Your task to perform on an android device: Go to accessibility settings Image 0: 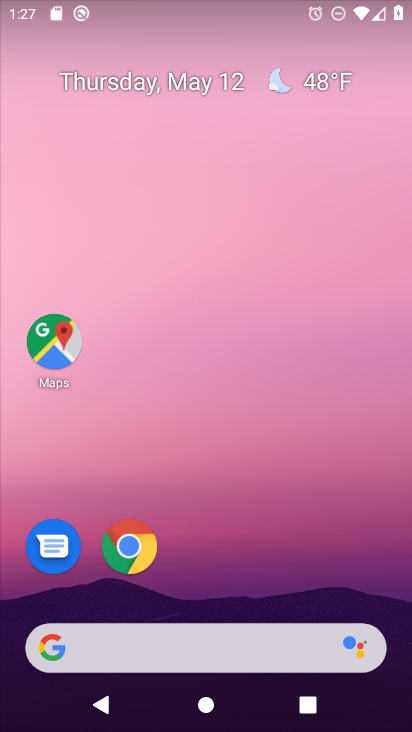
Step 0: drag from (169, 651) to (345, 121)
Your task to perform on an android device: Go to accessibility settings Image 1: 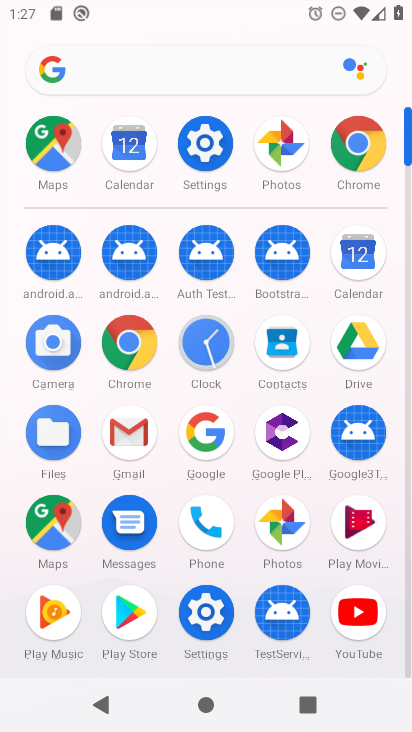
Step 1: click (214, 148)
Your task to perform on an android device: Go to accessibility settings Image 2: 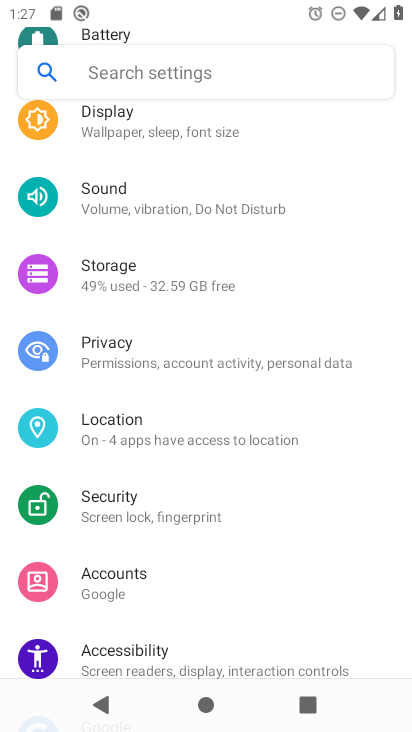
Step 2: click (146, 650)
Your task to perform on an android device: Go to accessibility settings Image 3: 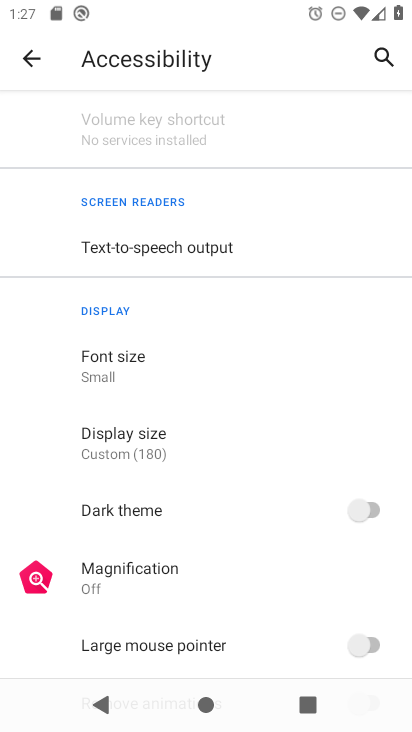
Step 3: task complete